Your task to perform on an android device: check storage Image 0: 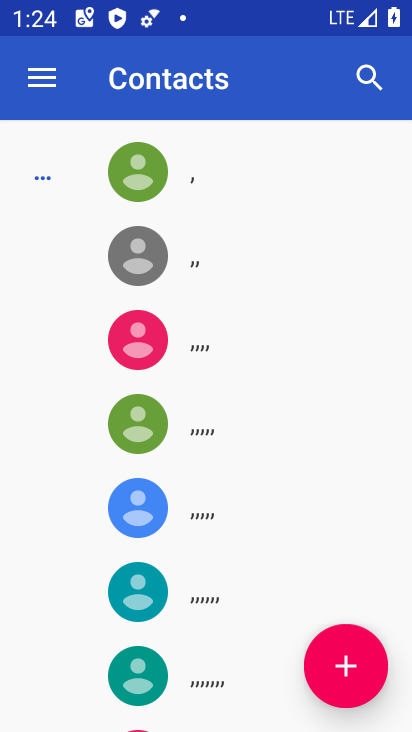
Step 0: press home button
Your task to perform on an android device: check storage Image 1: 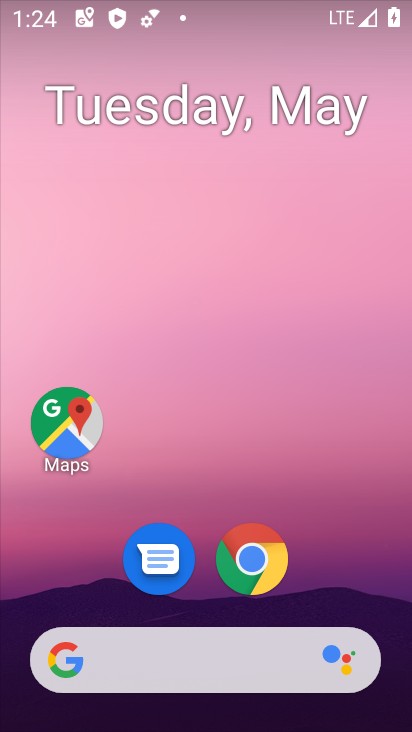
Step 1: drag from (337, 502) to (263, 69)
Your task to perform on an android device: check storage Image 2: 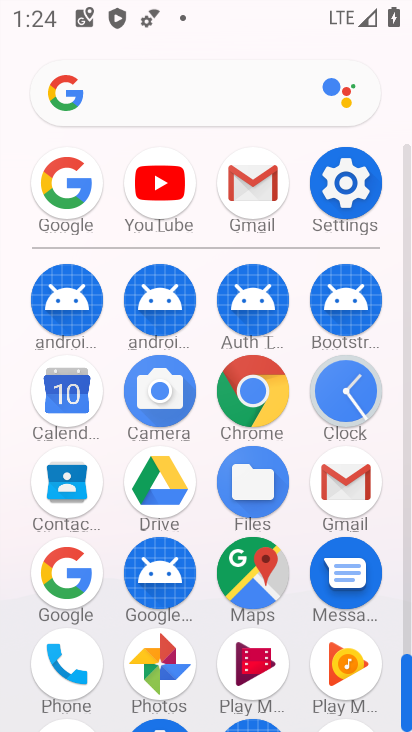
Step 2: click (346, 179)
Your task to perform on an android device: check storage Image 3: 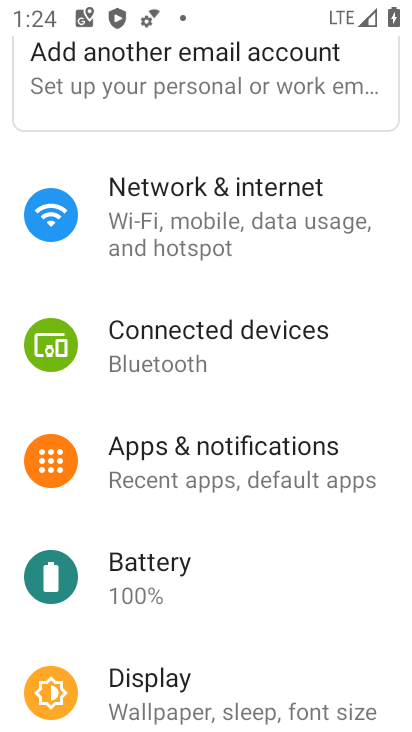
Step 3: drag from (225, 616) to (177, 138)
Your task to perform on an android device: check storage Image 4: 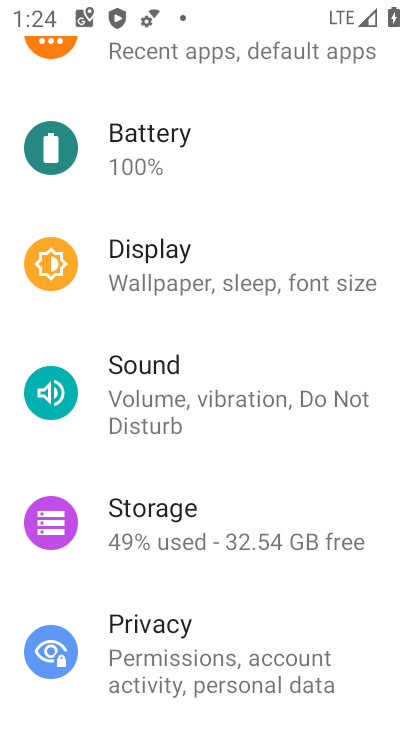
Step 4: click (200, 522)
Your task to perform on an android device: check storage Image 5: 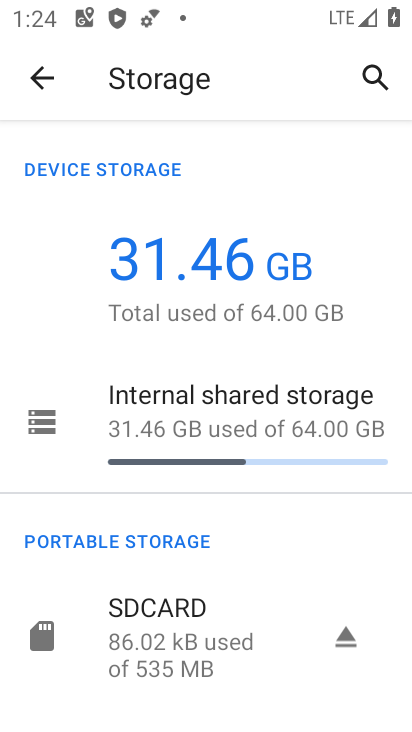
Step 5: task complete